Your task to perform on an android device: all mails in gmail Image 0: 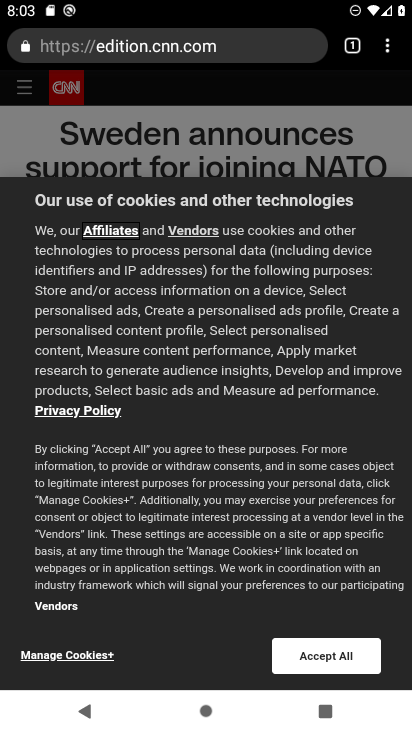
Step 0: press home button
Your task to perform on an android device: all mails in gmail Image 1: 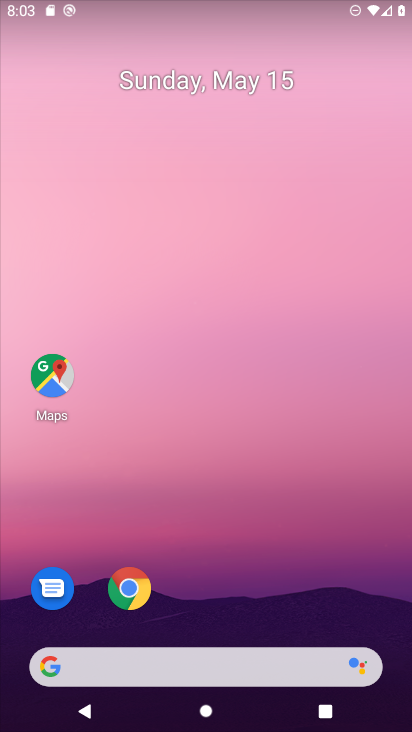
Step 1: drag from (233, 617) to (249, 102)
Your task to perform on an android device: all mails in gmail Image 2: 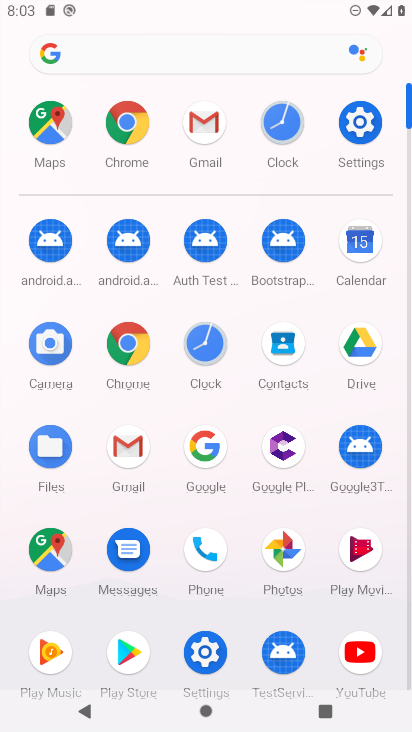
Step 2: click (202, 120)
Your task to perform on an android device: all mails in gmail Image 3: 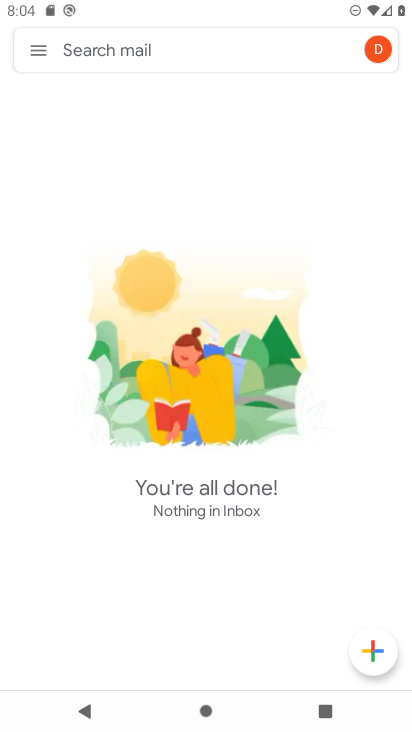
Step 3: click (34, 48)
Your task to perform on an android device: all mails in gmail Image 4: 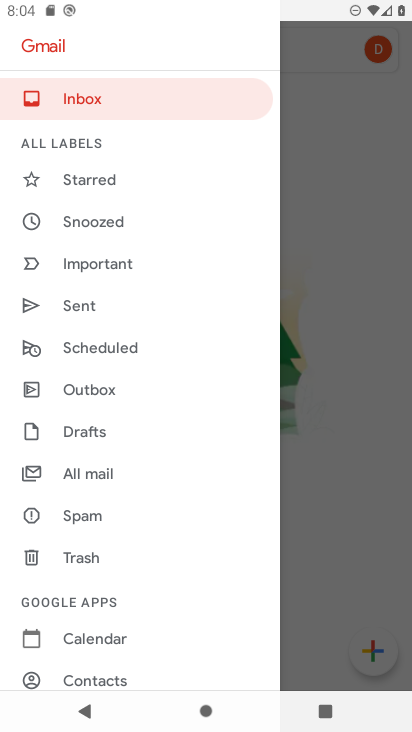
Step 4: click (119, 472)
Your task to perform on an android device: all mails in gmail Image 5: 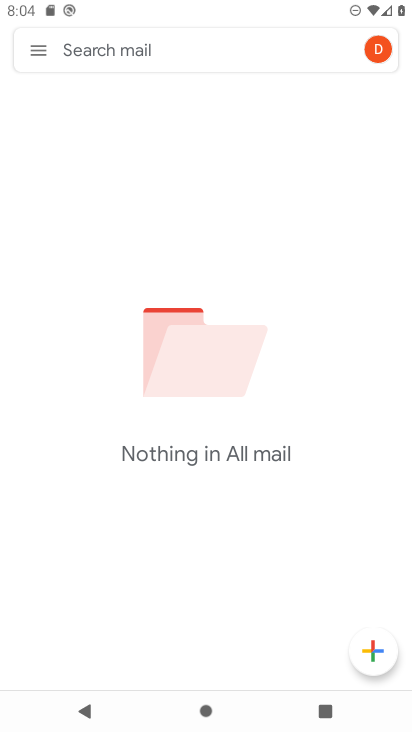
Step 5: task complete